Your task to perform on an android device: Open the calendar and show me this week's events? Image 0: 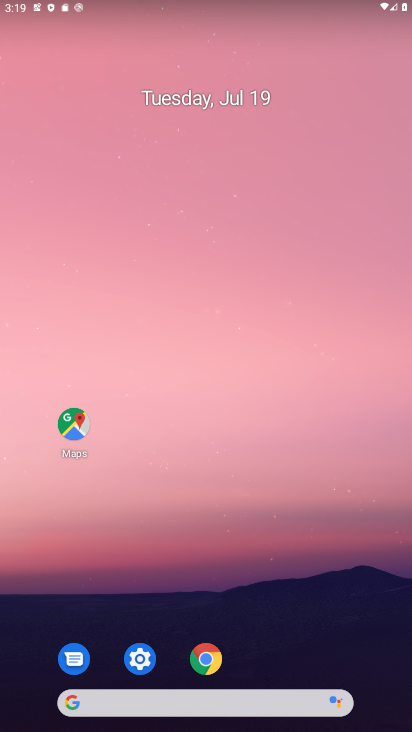
Step 0: drag from (265, 580) to (195, 174)
Your task to perform on an android device: Open the calendar and show me this week's events? Image 1: 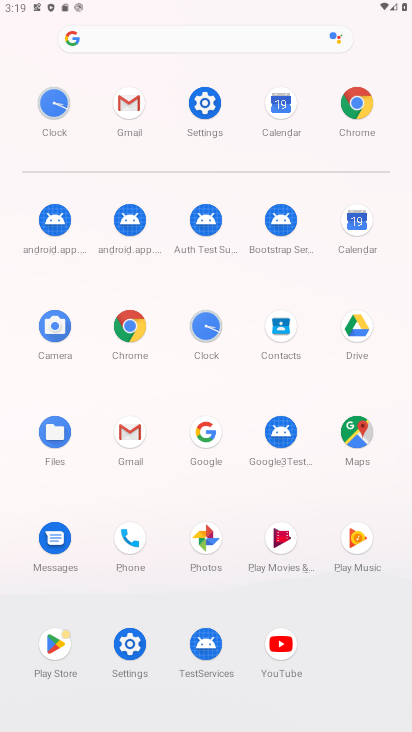
Step 1: click (359, 215)
Your task to perform on an android device: Open the calendar and show me this week's events? Image 2: 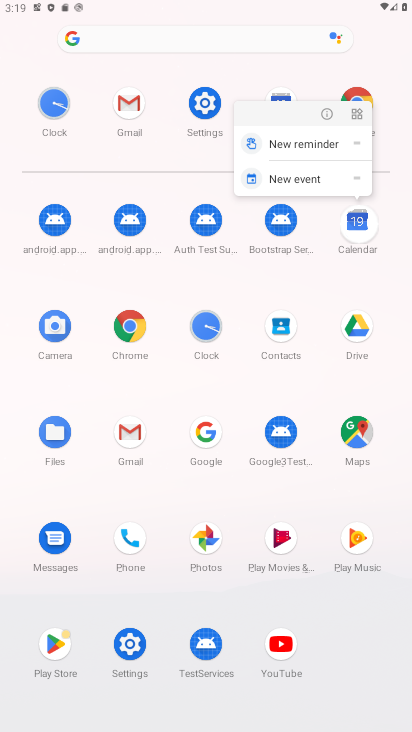
Step 2: click (362, 219)
Your task to perform on an android device: Open the calendar and show me this week's events? Image 3: 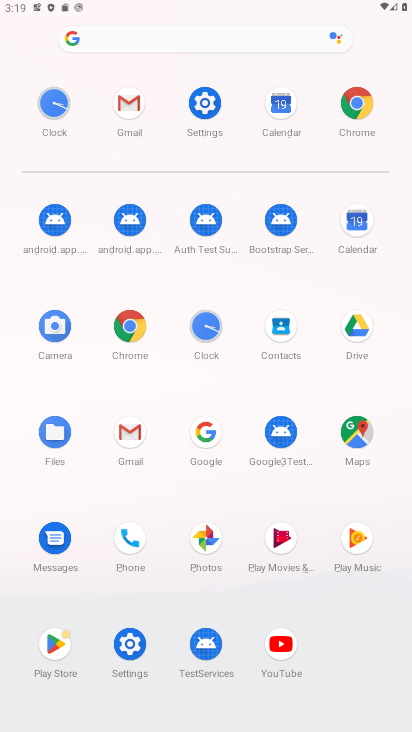
Step 3: click (364, 219)
Your task to perform on an android device: Open the calendar and show me this week's events? Image 4: 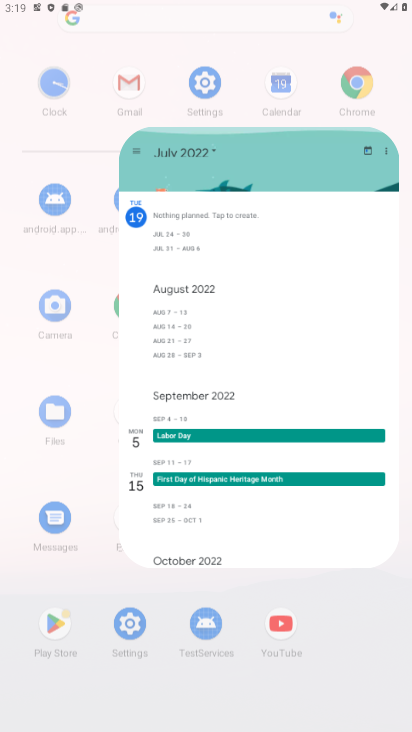
Step 4: click (364, 219)
Your task to perform on an android device: Open the calendar and show me this week's events? Image 5: 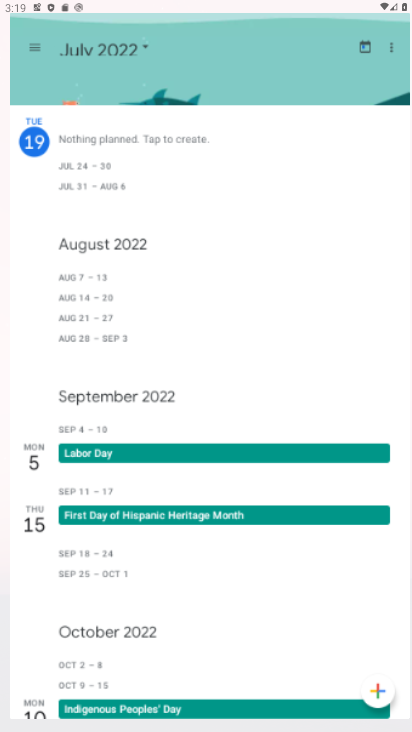
Step 5: click (365, 219)
Your task to perform on an android device: Open the calendar and show me this week's events? Image 6: 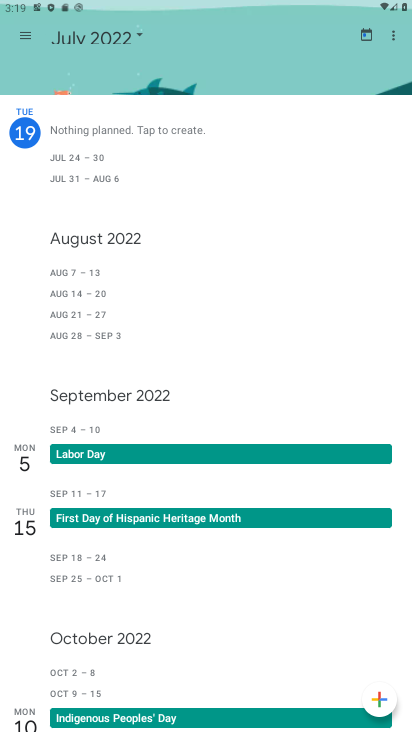
Step 6: click (136, 35)
Your task to perform on an android device: Open the calendar and show me this week's events? Image 7: 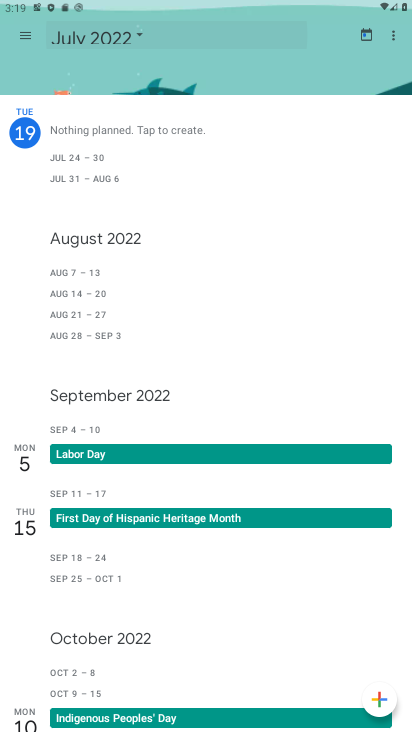
Step 7: click (169, 35)
Your task to perform on an android device: Open the calendar and show me this week's events? Image 8: 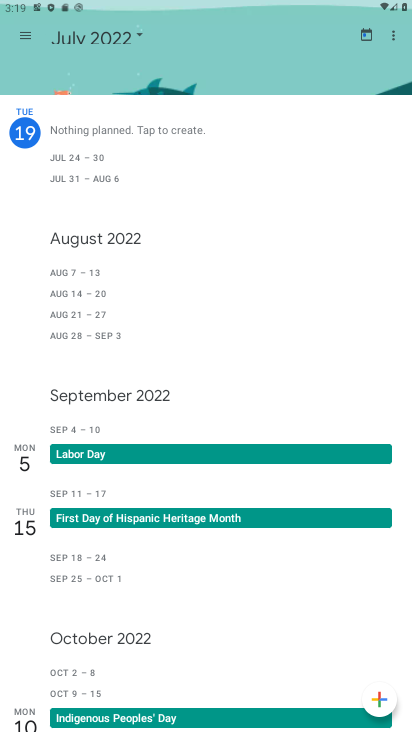
Step 8: click (135, 31)
Your task to perform on an android device: Open the calendar and show me this week's events? Image 9: 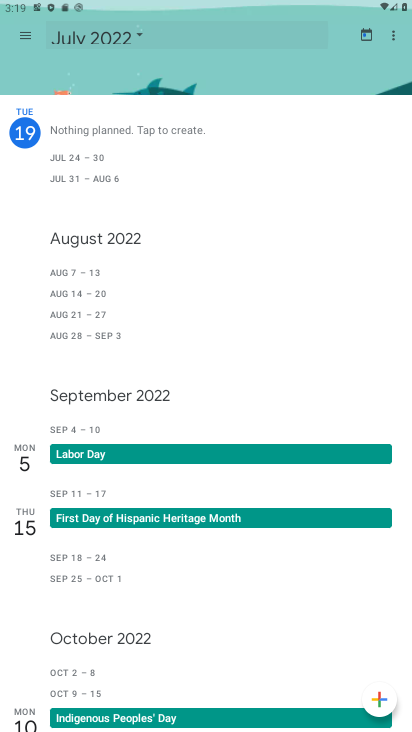
Step 9: click (136, 32)
Your task to perform on an android device: Open the calendar and show me this week's events? Image 10: 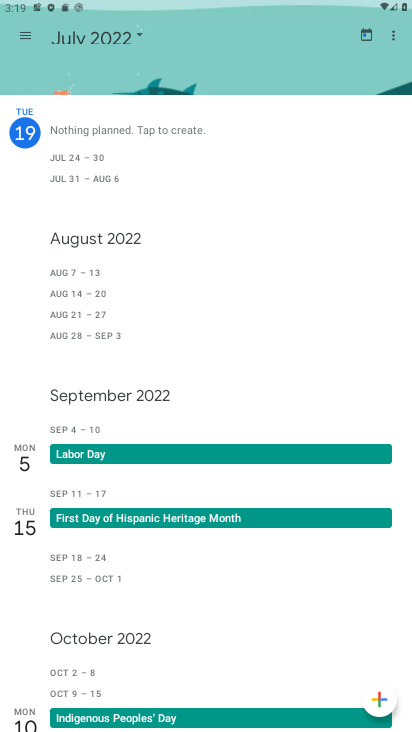
Step 10: click (139, 33)
Your task to perform on an android device: Open the calendar and show me this week's events? Image 11: 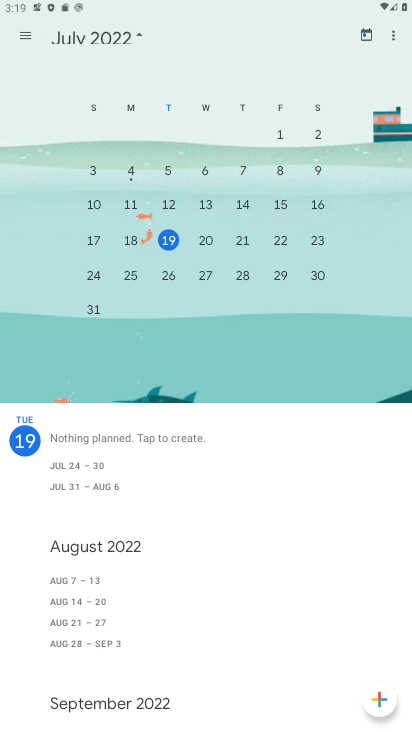
Step 11: click (209, 232)
Your task to perform on an android device: Open the calendar and show me this week's events? Image 12: 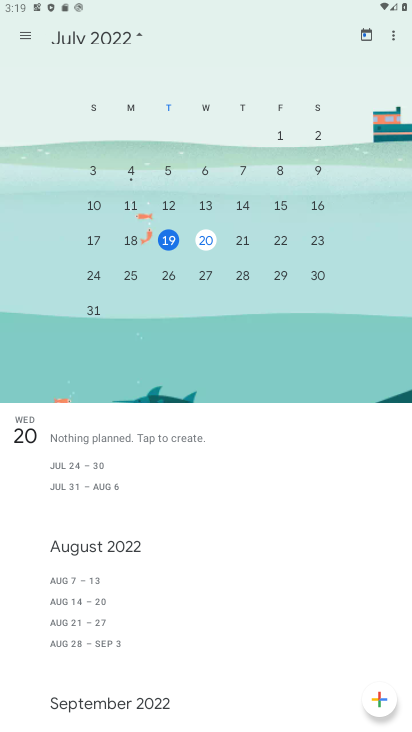
Step 12: click (209, 235)
Your task to perform on an android device: Open the calendar and show me this week's events? Image 13: 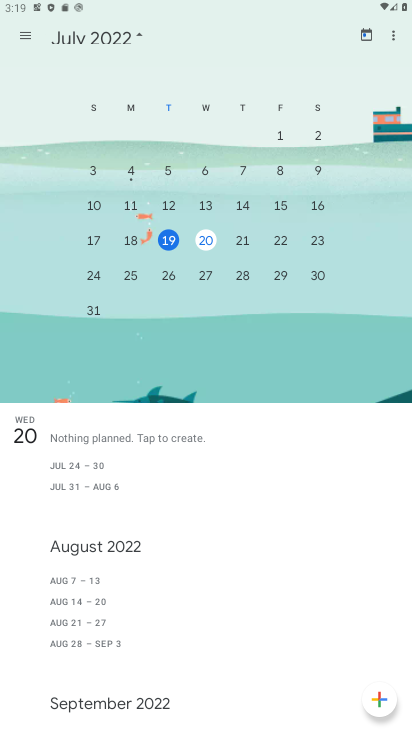
Step 13: click (289, 236)
Your task to perform on an android device: Open the calendar and show me this week's events? Image 14: 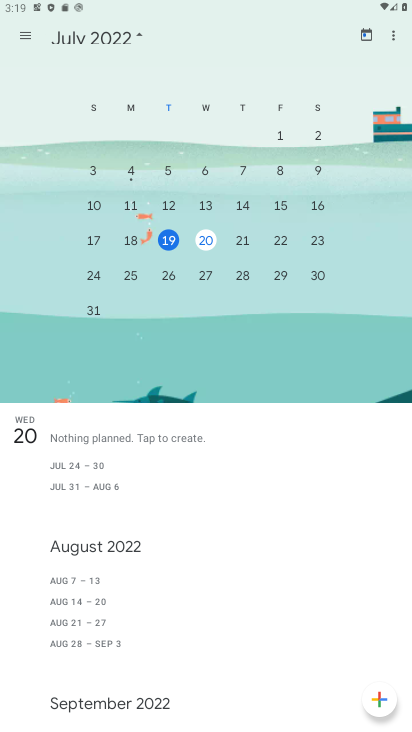
Step 14: click (289, 234)
Your task to perform on an android device: Open the calendar and show me this week's events? Image 15: 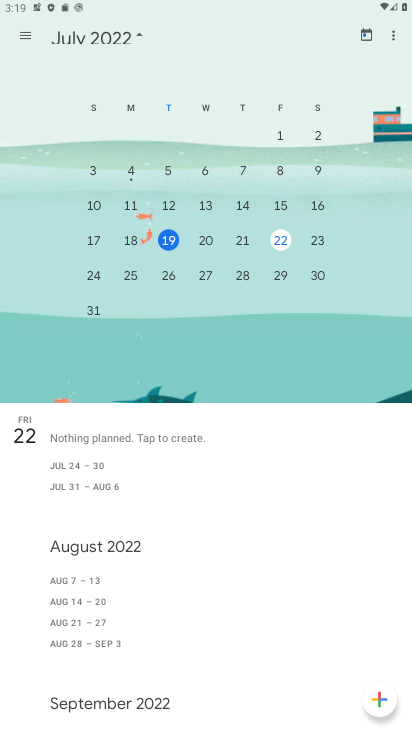
Step 15: click (315, 240)
Your task to perform on an android device: Open the calendar and show me this week's events? Image 16: 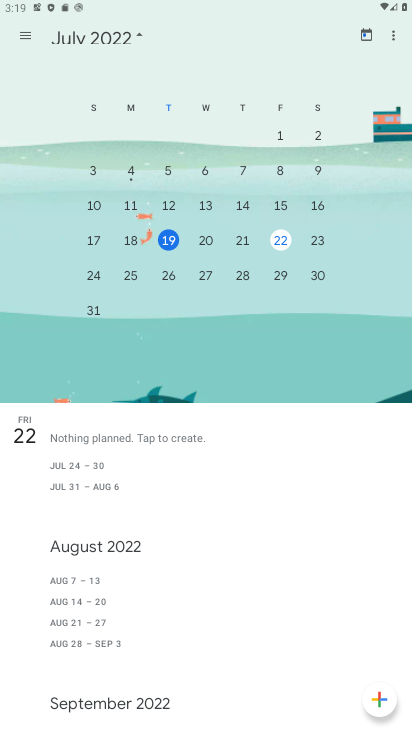
Step 16: click (315, 240)
Your task to perform on an android device: Open the calendar and show me this week's events? Image 17: 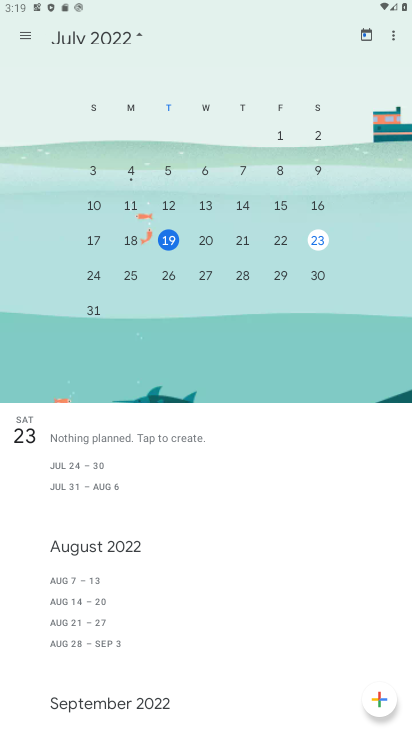
Step 17: task complete